Your task to perform on an android device: find photos in the google photos app Image 0: 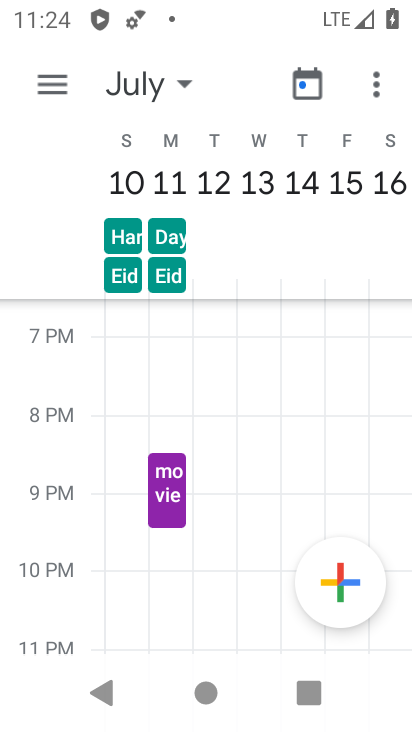
Step 0: press home button
Your task to perform on an android device: find photos in the google photos app Image 1: 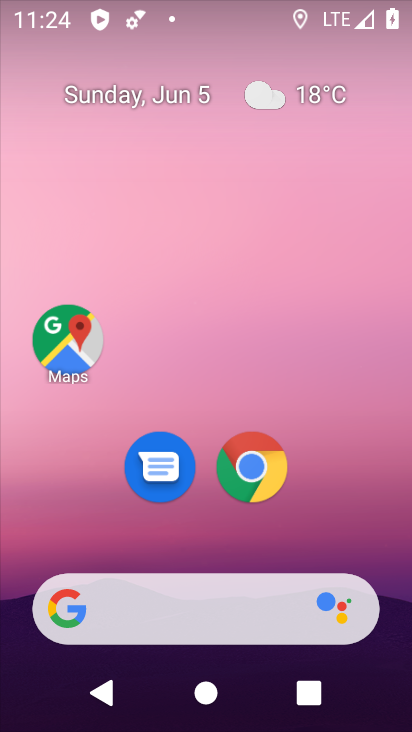
Step 1: drag from (203, 546) to (152, 39)
Your task to perform on an android device: find photos in the google photos app Image 2: 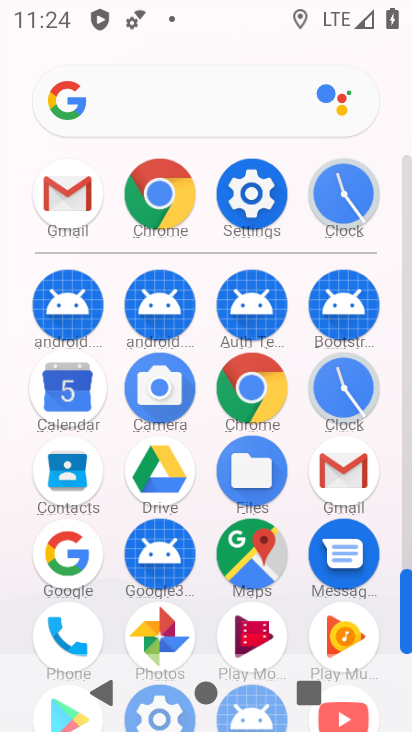
Step 2: click (154, 629)
Your task to perform on an android device: find photos in the google photos app Image 3: 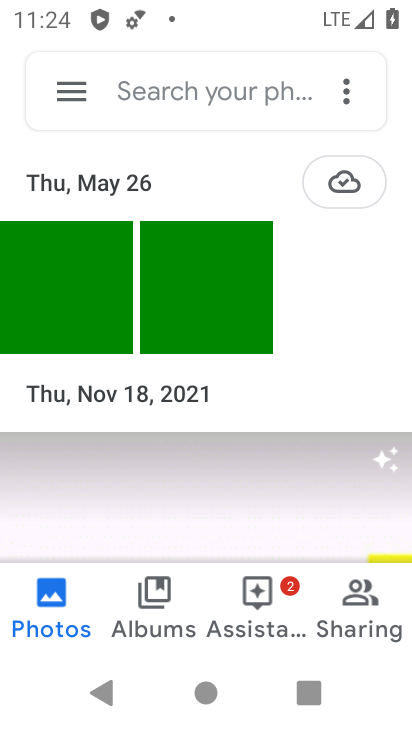
Step 3: task complete